Your task to perform on an android device: Check the news Image 0: 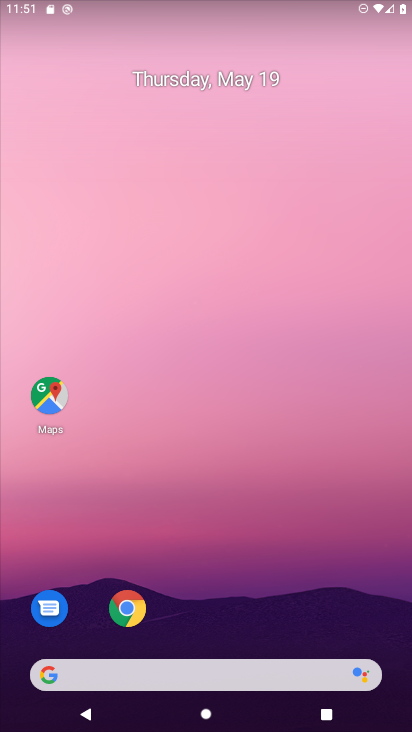
Step 0: press home button
Your task to perform on an android device: Check the news Image 1: 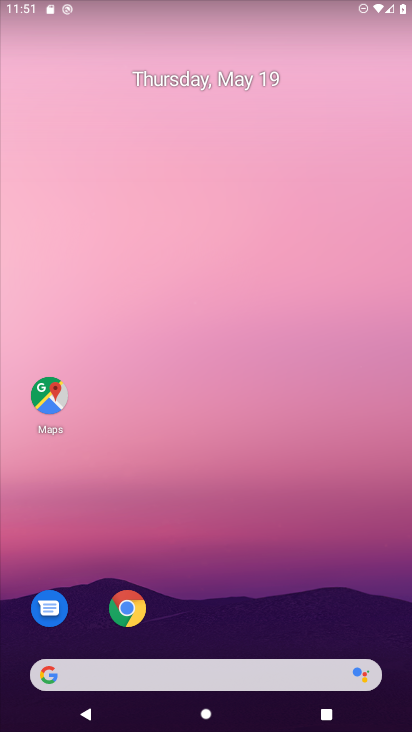
Step 1: click (150, 619)
Your task to perform on an android device: Check the news Image 2: 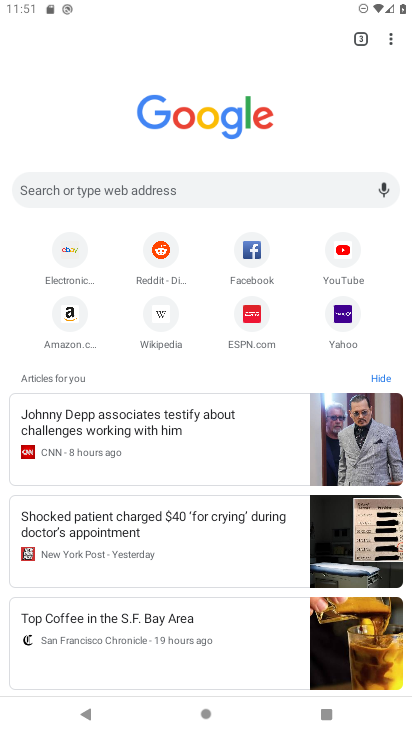
Step 2: click (322, 191)
Your task to perform on an android device: Check the news Image 3: 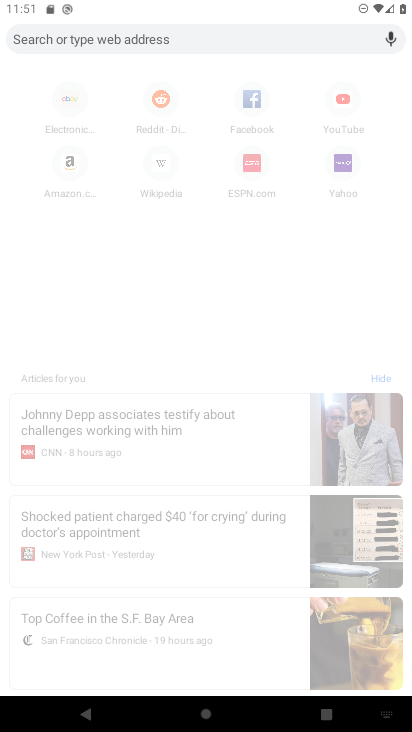
Step 3: type " news"
Your task to perform on an android device: Check the news Image 4: 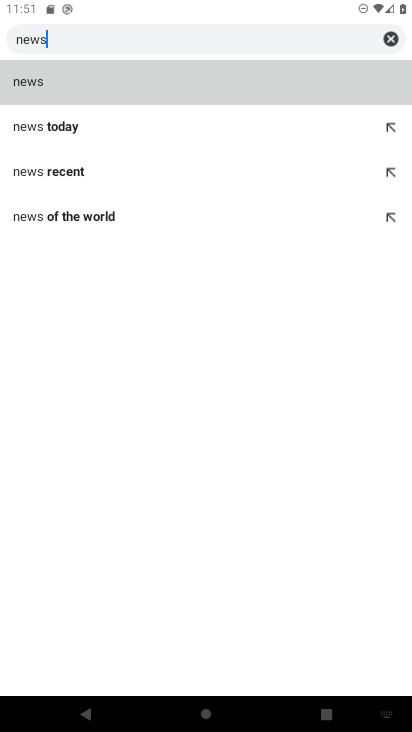
Step 4: click (82, 65)
Your task to perform on an android device: Check the news Image 5: 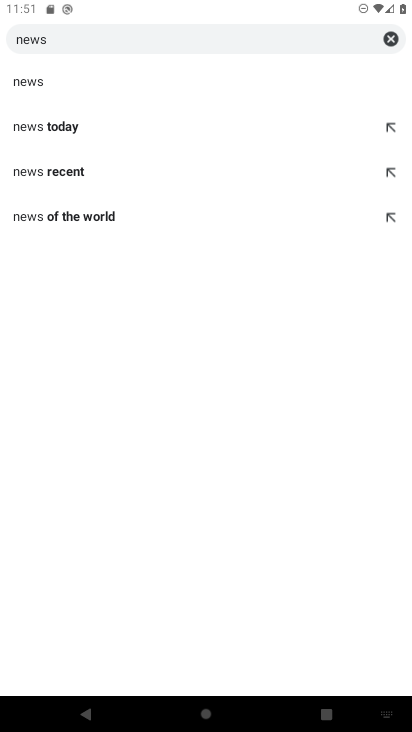
Step 5: click (23, 85)
Your task to perform on an android device: Check the news Image 6: 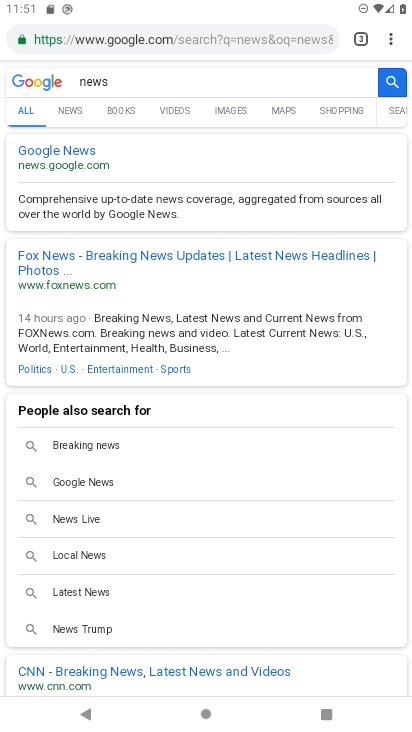
Step 6: task complete